Your task to perform on an android device: see tabs open on other devices in the chrome app Image 0: 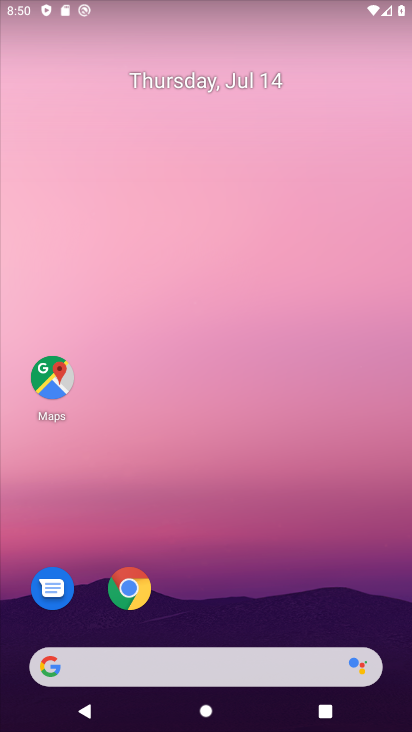
Step 0: drag from (299, 581) to (279, 4)
Your task to perform on an android device: see tabs open on other devices in the chrome app Image 1: 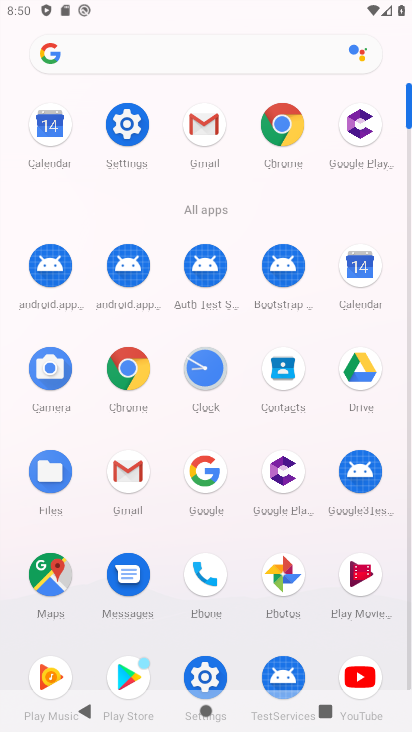
Step 1: click (290, 140)
Your task to perform on an android device: see tabs open on other devices in the chrome app Image 2: 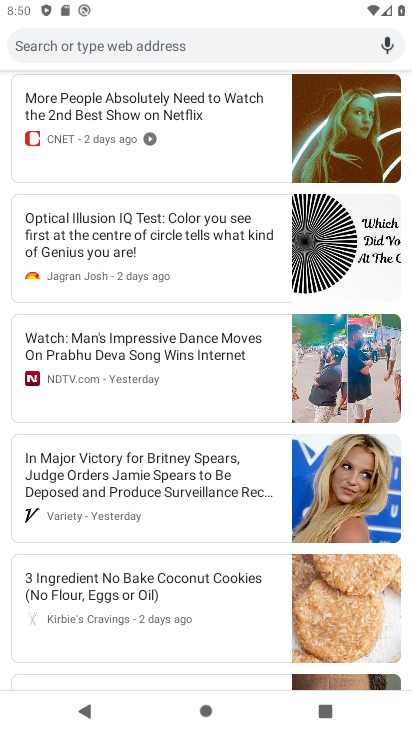
Step 2: drag from (235, 200) to (351, 678)
Your task to perform on an android device: see tabs open on other devices in the chrome app Image 3: 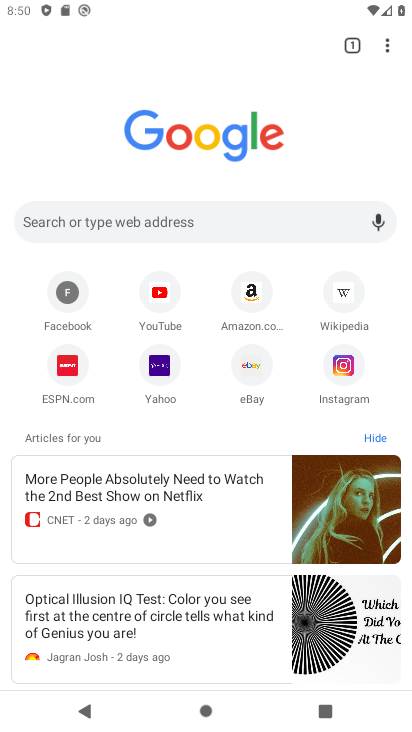
Step 3: drag from (385, 44) to (228, 209)
Your task to perform on an android device: see tabs open on other devices in the chrome app Image 4: 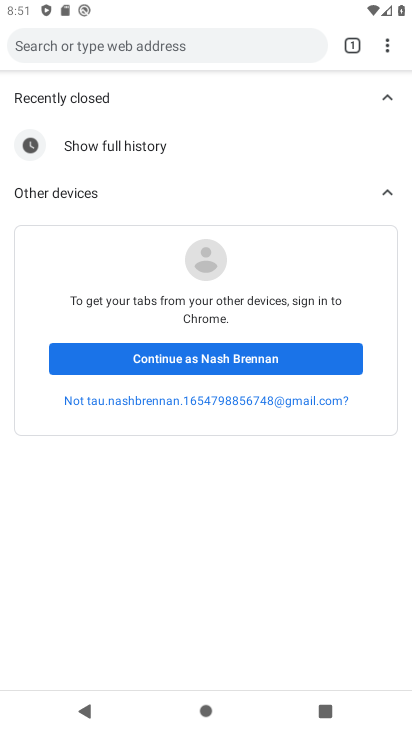
Step 4: click (200, 364)
Your task to perform on an android device: see tabs open on other devices in the chrome app Image 5: 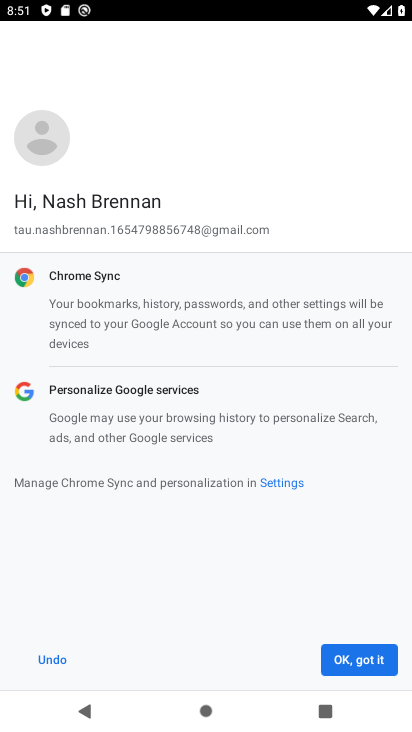
Step 5: click (367, 659)
Your task to perform on an android device: see tabs open on other devices in the chrome app Image 6: 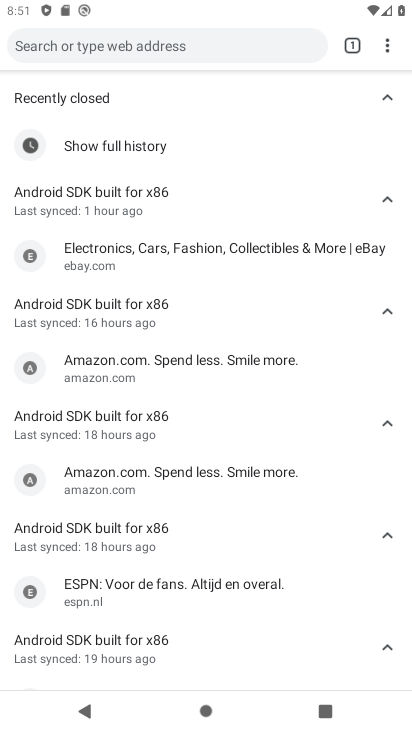
Step 6: task complete